Your task to perform on an android device: Show the shopping cart on walmart. Add logitech g pro to the cart on walmart Image 0: 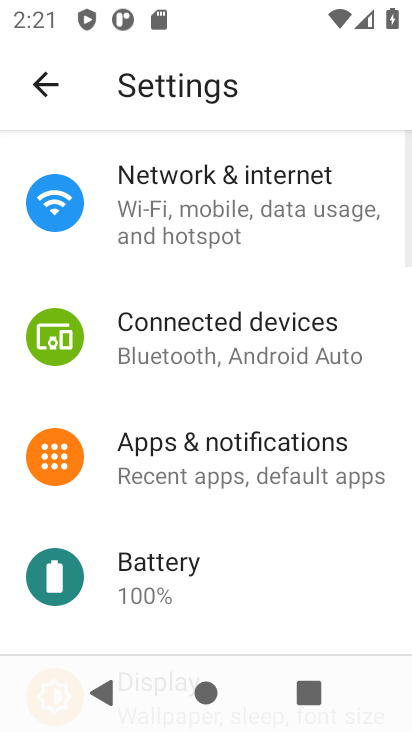
Step 0: press home button
Your task to perform on an android device: Show the shopping cart on walmart. Add logitech g pro to the cart on walmart Image 1: 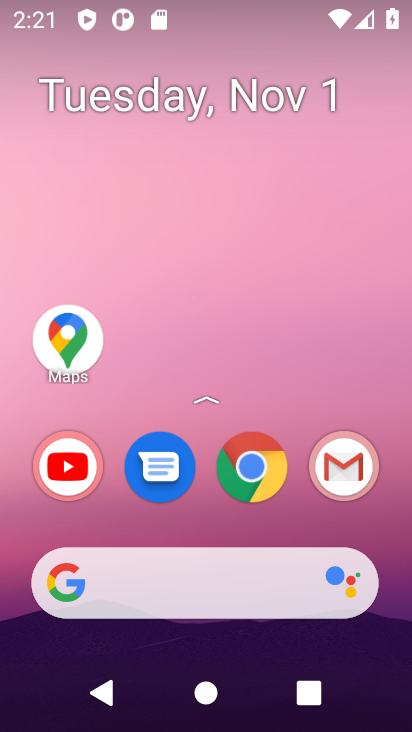
Step 1: click (258, 487)
Your task to perform on an android device: Show the shopping cart on walmart. Add logitech g pro to the cart on walmart Image 2: 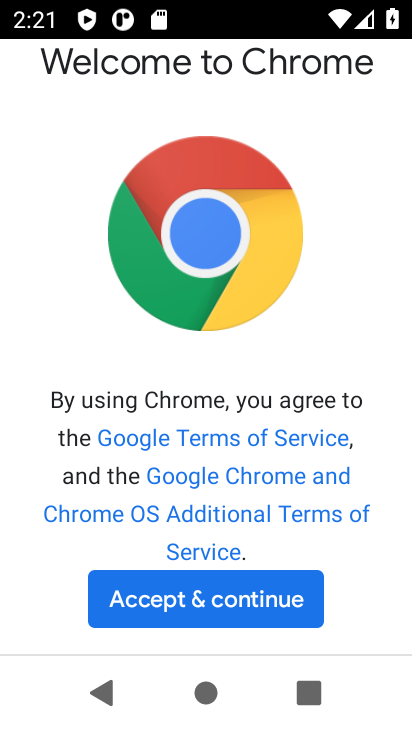
Step 2: click (243, 606)
Your task to perform on an android device: Show the shopping cart on walmart. Add logitech g pro to the cart on walmart Image 3: 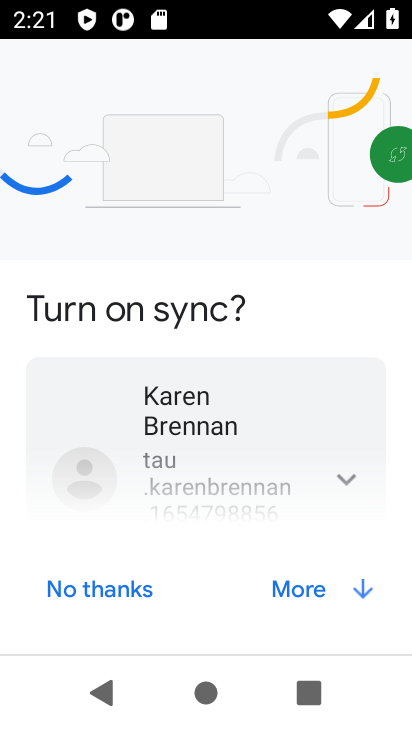
Step 3: click (340, 591)
Your task to perform on an android device: Show the shopping cart on walmart. Add logitech g pro to the cart on walmart Image 4: 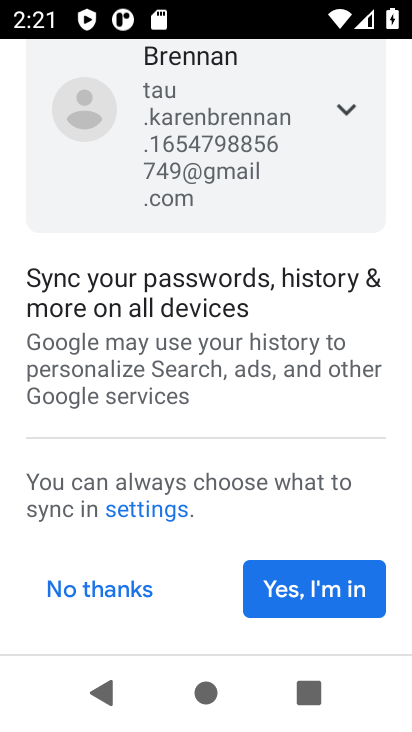
Step 4: click (340, 591)
Your task to perform on an android device: Show the shopping cart on walmart. Add logitech g pro to the cart on walmart Image 5: 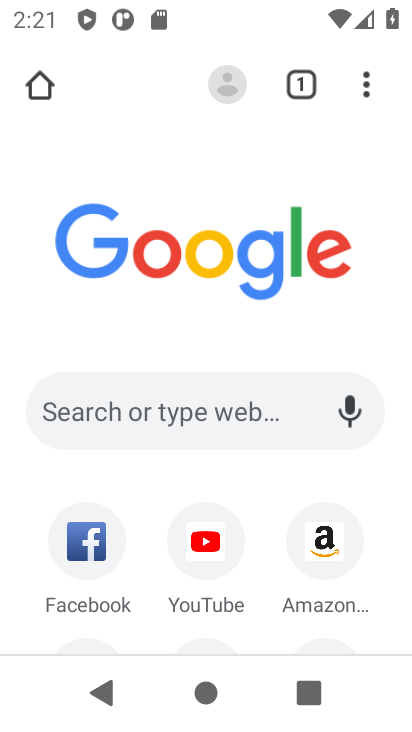
Step 5: click (224, 415)
Your task to perform on an android device: Show the shopping cart on walmart. Add logitech g pro to the cart on walmart Image 6: 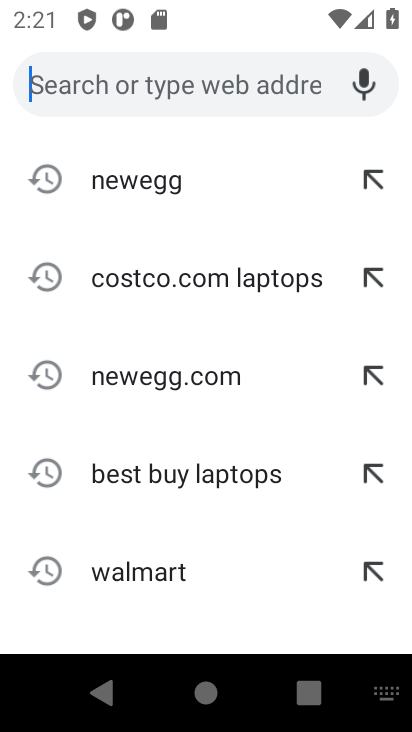
Step 6: type "walmart"
Your task to perform on an android device: Show the shopping cart on walmart. Add logitech g pro to the cart on walmart Image 7: 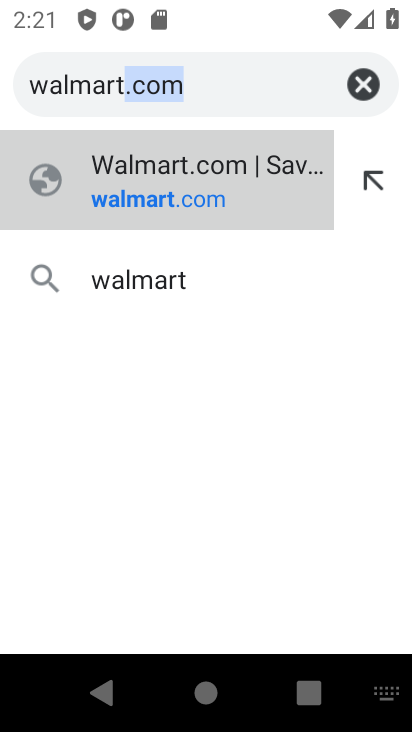
Step 7: type ""
Your task to perform on an android device: Show the shopping cart on walmart. Add logitech g pro to the cart on walmart Image 8: 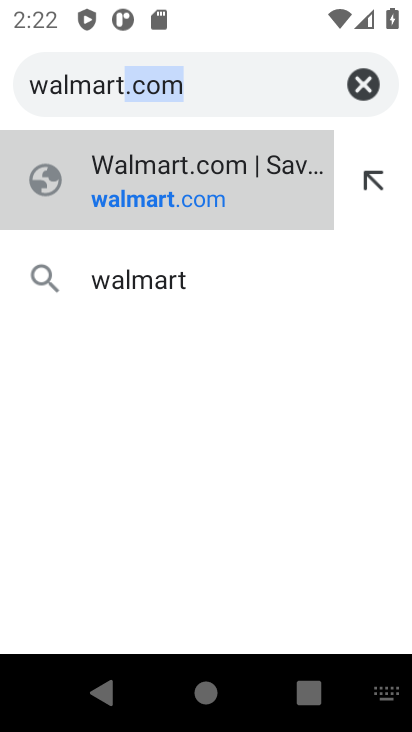
Step 8: press enter
Your task to perform on an android device: Show the shopping cart on walmart. Add logitech g pro to the cart on walmart Image 9: 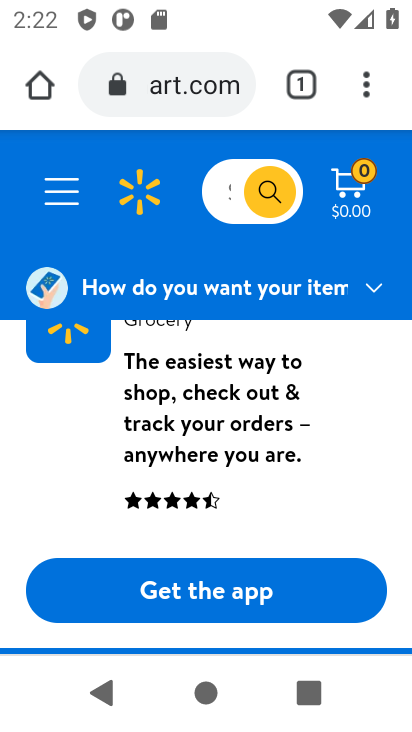
Step 9: drag from (323, 424) to (316, 500)
Your task to perform on an android device: Show the shopping cart on walmart. Add logitech g pro to the cart on walmart Image 10: 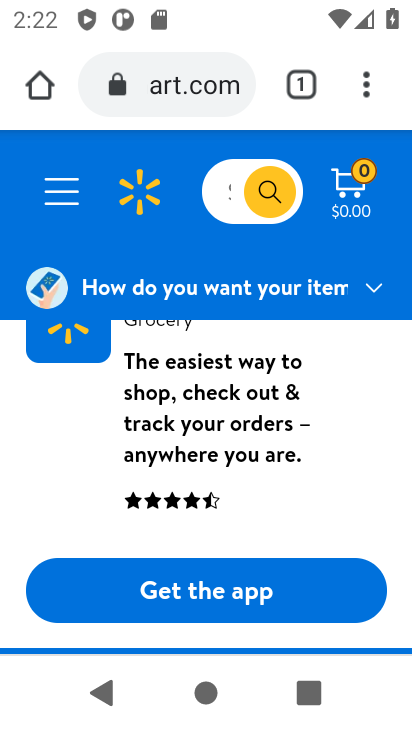
Step 10: click (232, 209)
Your task to perform on an android device: Show the shopping cart on walmart. Add logitech g pro to the cart on walmart Image 11: 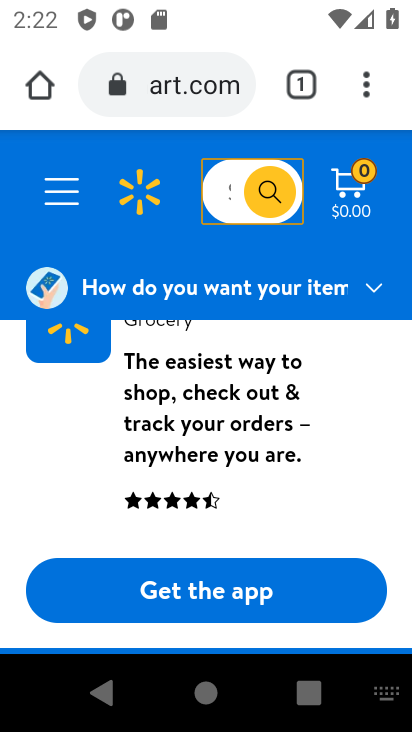
Step 11: type "logitech g pro"
Your task to perform on an android device: Show the shopping cart on walmart. Add logitech g pro to the cart on walmart Image 12: 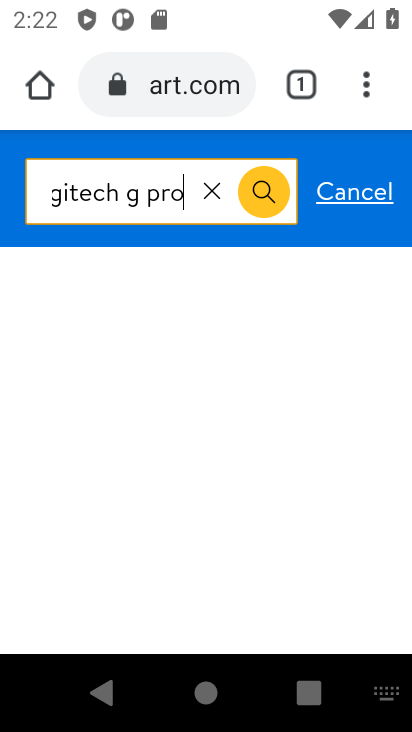
Step 12: type ""
Your task to perform on an android device: Show the shopping cart on walmart. Add logitech g pro to the cart on walmart Image 13: 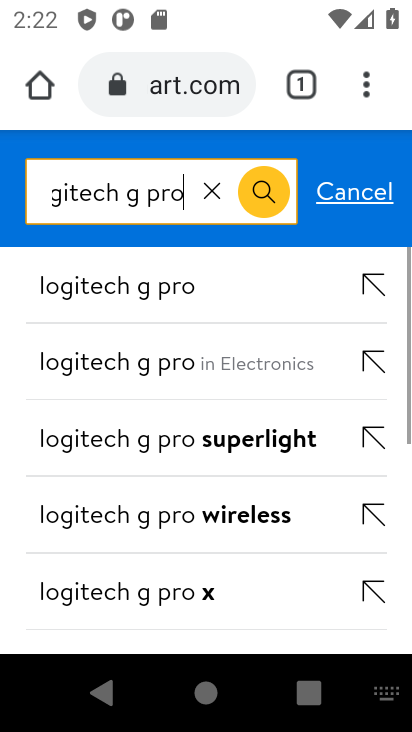
Step 13: press enter
Your task to perform on an android device: Show the shopping cart on walmart. Add logitech g pro to the cart on walmart Image 14: 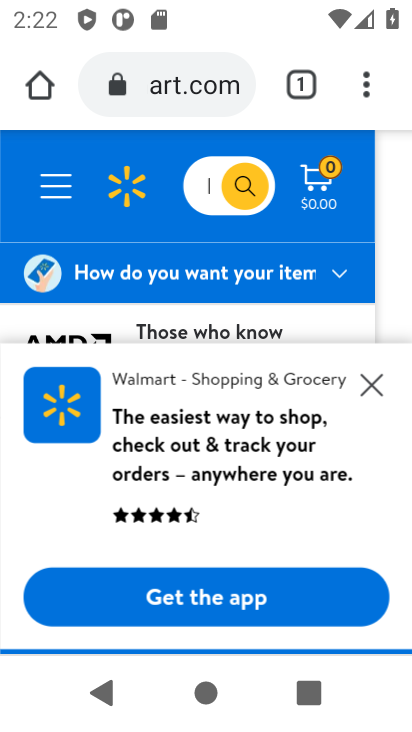
Step 14: click (366, 388)
Your task to perform on an android device: Show the shopping cart on walmart. Add logitech g pro to the cart on walmart Image 15: 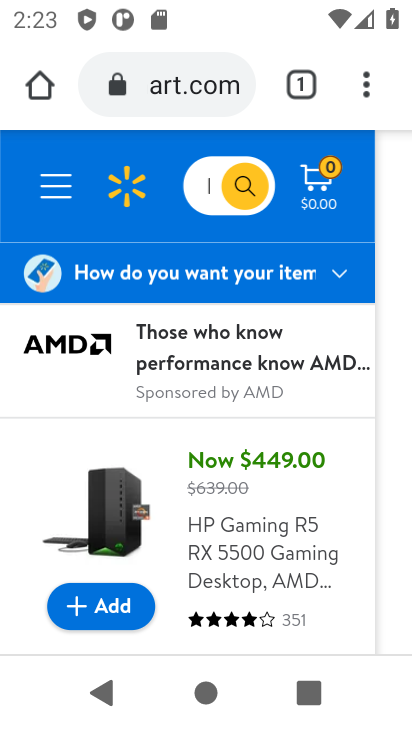
Step 15: drag from (274, 588) to (266, 240)
Your task to perform on an android device: Show the shopping cart on walmart. Add logitech g pro to the cart on walmart Image 16: 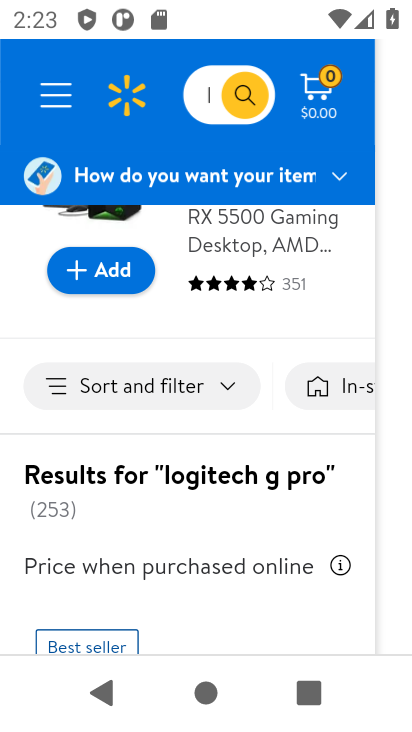
Step 16: drag from (253, 588) to (264, 236)
Your task to perform on an android device: Show the shopping cart on walmart. Add logitech g pro to the cart on walmart Image 17: 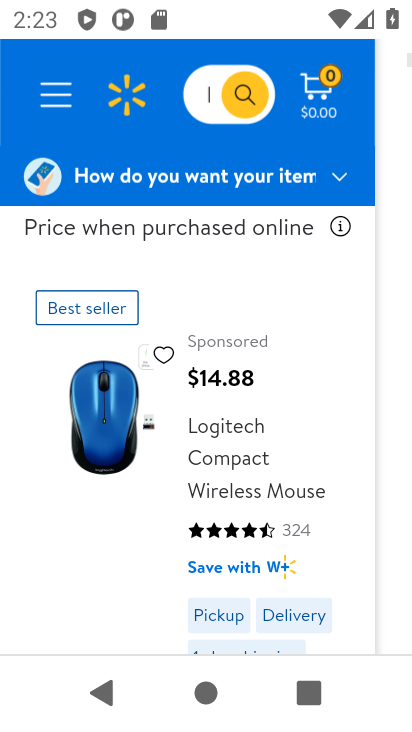
Step 17: drag from (270, 573) to (261, 312)
Your task to perform on an android device: Show the shopping cart on walmart. Add logitech g pro to the cart on walmart Image 18: 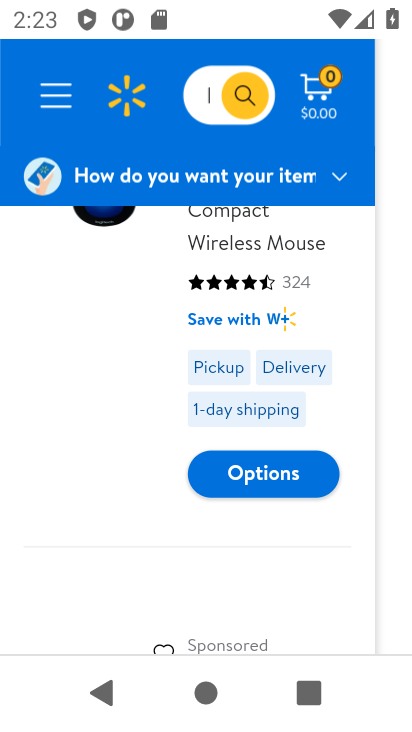
Step 18: drag from (249, 610) to (208, 266)
Your task to perform on an android device: Show the shopping cart on walmart. Add logitech g pro to the cart on walmart Image 19: 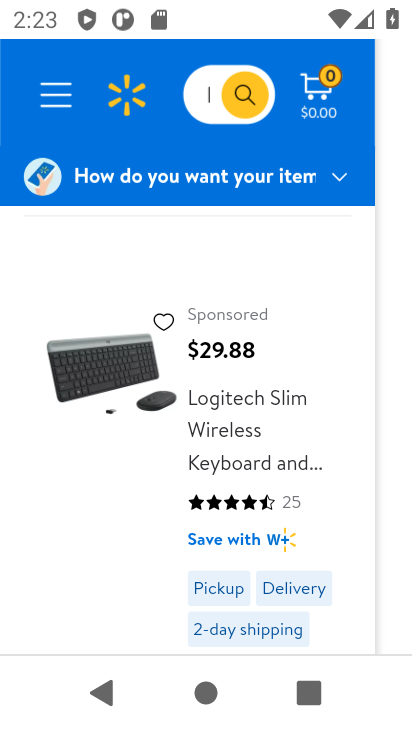
Step 19: drag from (193, 548) to (195, 241)
Your task to perform on an android device: Show the shopping cart on walmart. Add logitech g pro to the cart on walmart Image 20: 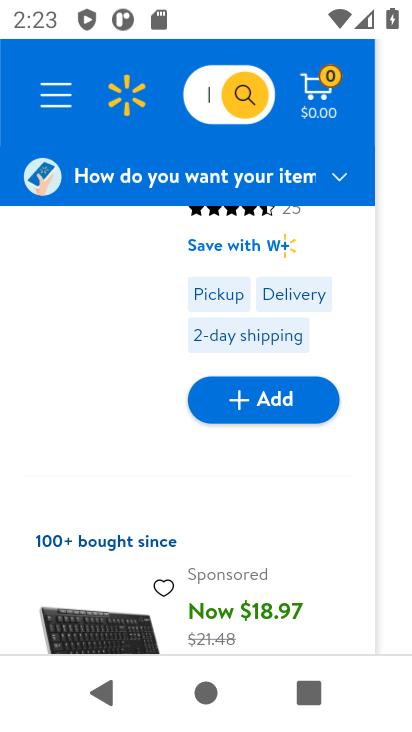
Step 20: drag from (284, 573) to (284, 281)
Your task to perform on an android device: Show the shopping cart on walmart. Add logitech g pro to the cart on walmart Image 21: 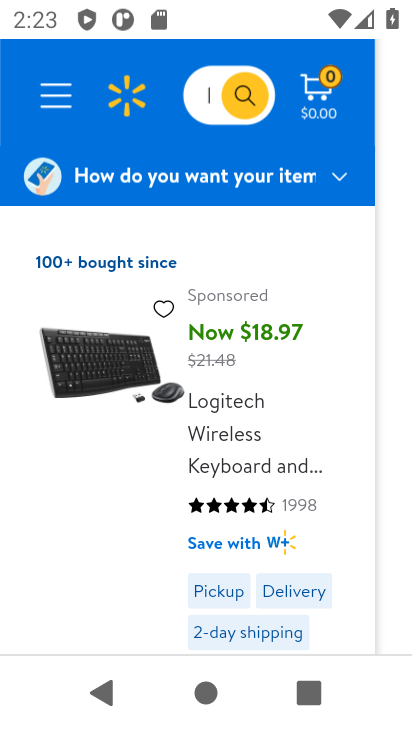
Step 21: drag from (169, 560) to (178, 210)
Your task to perform on an android device: Show the shopping cart on walmart. Add logitech g pro to the cart on walmart Image 22: 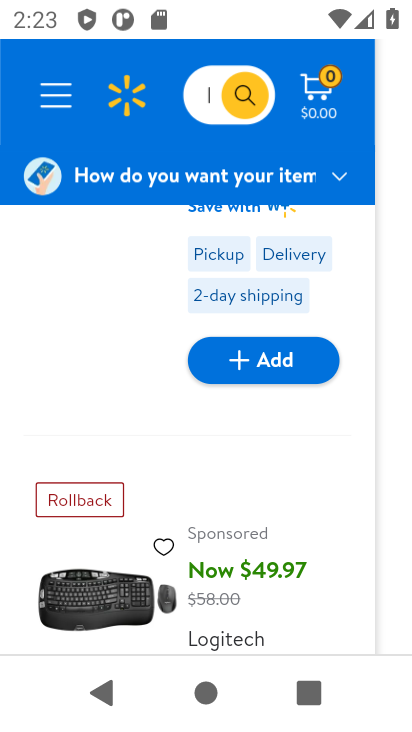
Step 22: drag from (280, 607) to (260, 265)
Your task to perform on an android device: Show the shopping cart on walmart. Add logitech g pro to the cart on walmart Image 23: 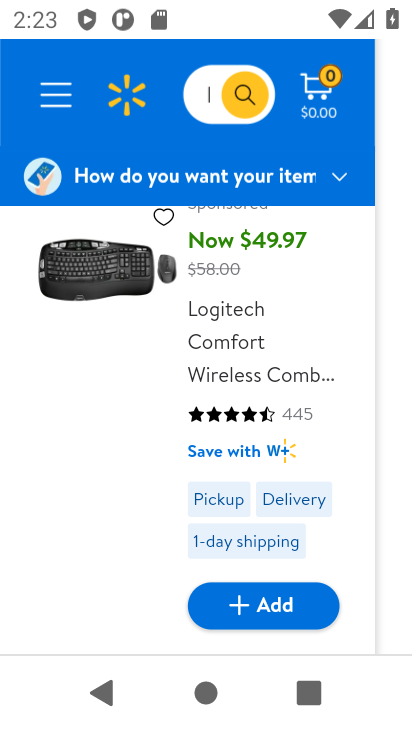
Step 23: drag from (231, 545) to (231, 178)
Your task to perform on an android device: Show the shopping cart on walmart. Add logitech g pro to the cart on walmart Image 24: 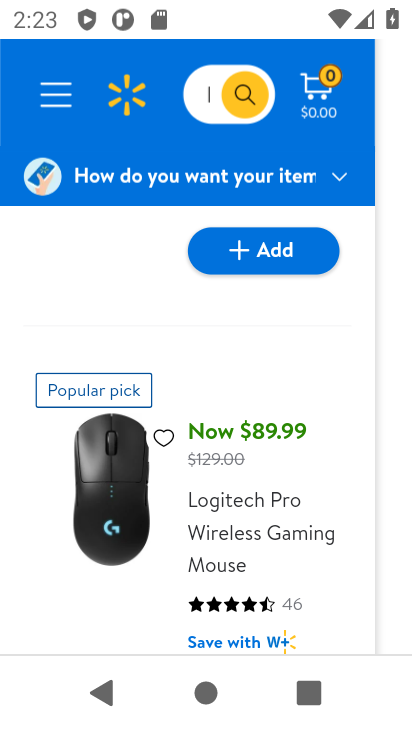
Step 24: drag from (313, 591) to (317, 202)
Your task to perform on an android device: Show the shopping cart on walmart. Add logitech g pro to the cart on walmart Image 25: 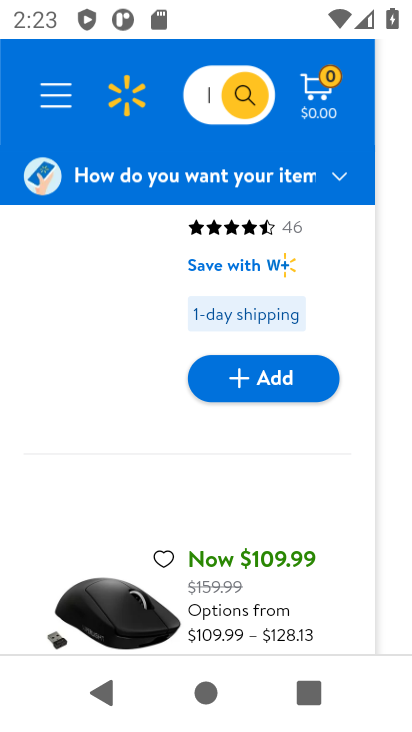
Step 25: drag from (314, 527) to (308, 251)
Your task to perform on an android device: Show the shopping cart on walmart. Add logitech g pro to the cart on walmart Image 26: 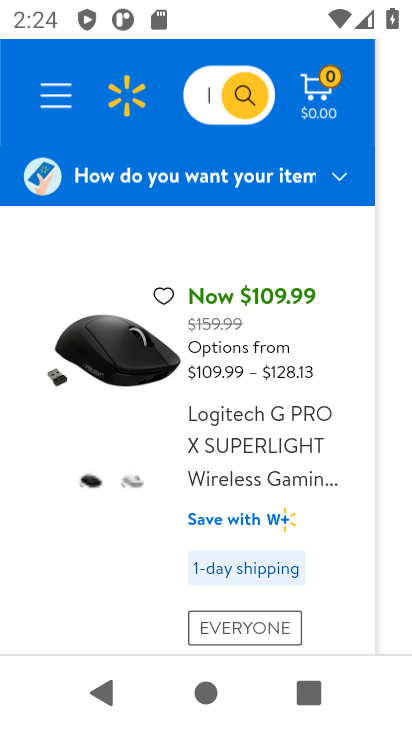
Step 26: drag from (300, 578) to (306, 493)
Your task to perform on an android device: Show the shopping cart on walmart. Add logitech g pro to the cart on walmart Image 27: 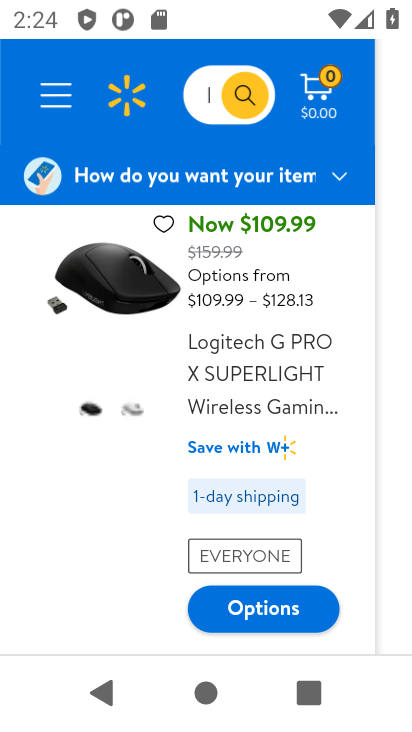
Step 27: click (253, 377)
Your task to perform on an android device: Show the shopping cart on walmart. Add logitech g pro to the cart on walmart Image 28: 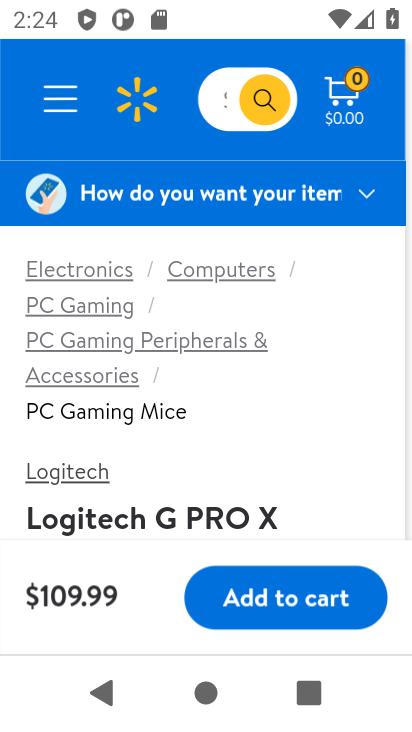
Step 28: click (335, 620)
Your task to perform on an android device: Show the shopping cart on walmart. Add logitech g pro to the cart on walmart Image 29: 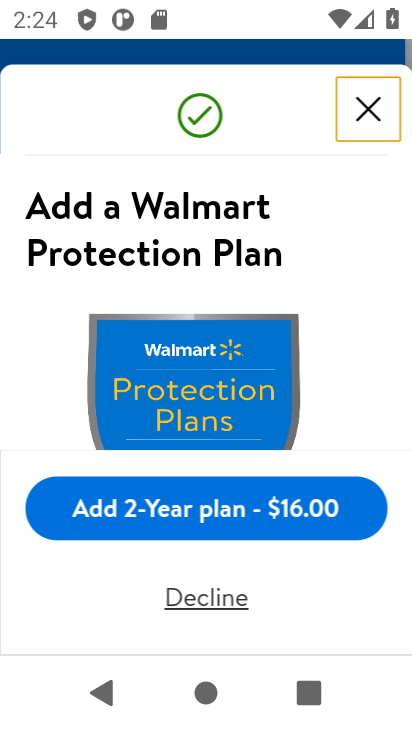
Step 29: task complete